Your task to perform on an android device: Do I have any events today? Image 0: 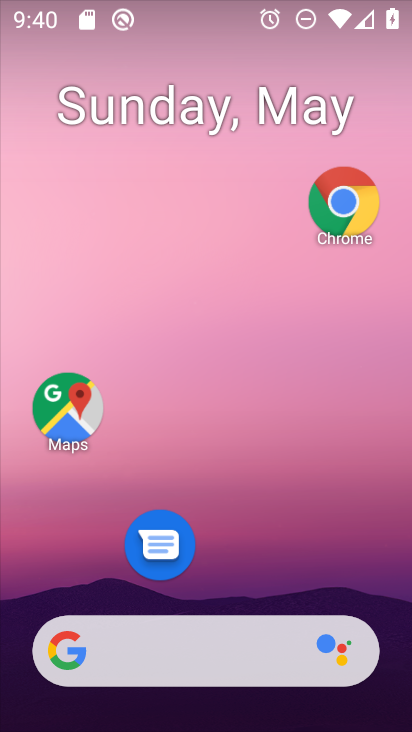
Step 0: drag from (278, 539) to (226, 36)
Your task to perform on an android device: Do I have any events today? Image 1: 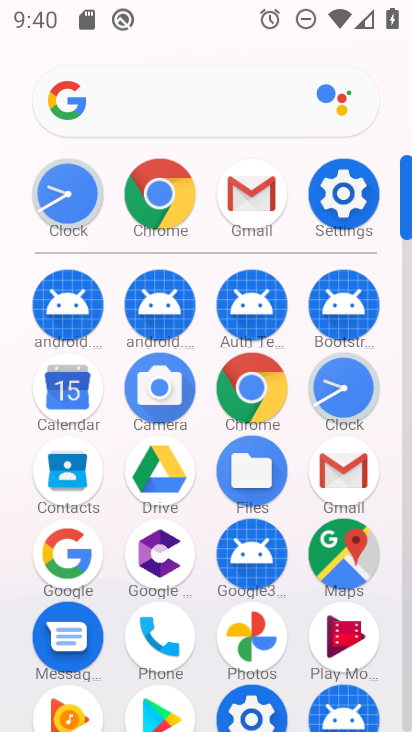
Step 1: click (68, 391)
Your task to perform on an android device: Do I have any events today? Image 2: 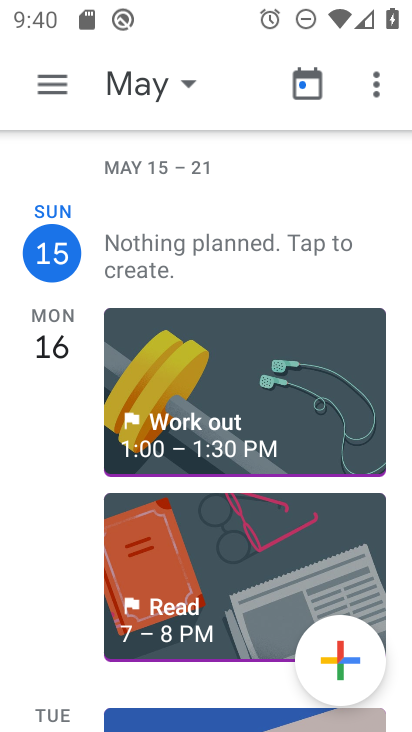
Step 2: click (143, 69)
Your task to perform on an android device: Do I have any events today? Image 3: 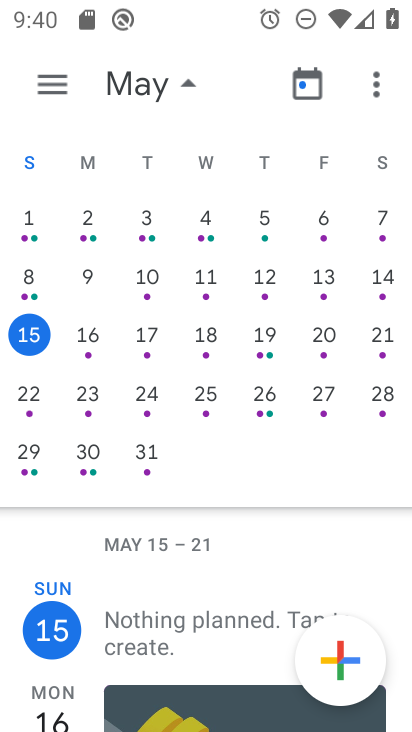
Step 3: click (32, 339)
Your task to perform on an android device: Do I have any events today? Image 4: 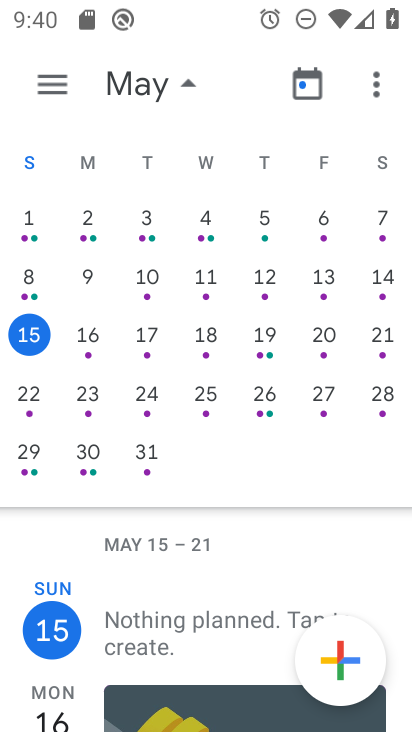
Step 4: click (44, 352)
Your task to perform on an android device: Do I have any events today? Image 5: 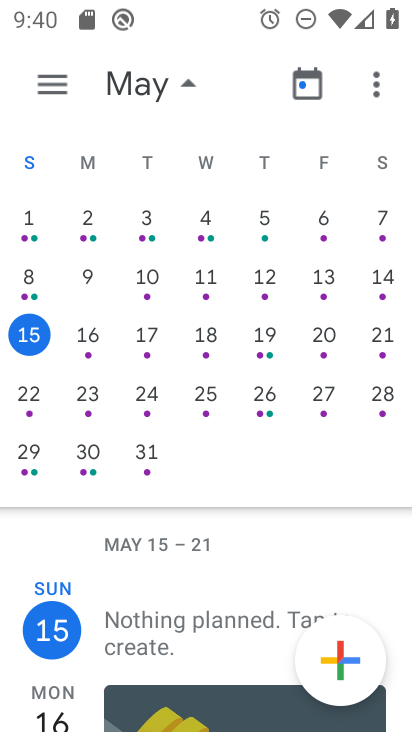
Step 5: task complete